Your task to perform on an android device: delete the emails in spam in the gmail app Image 0: 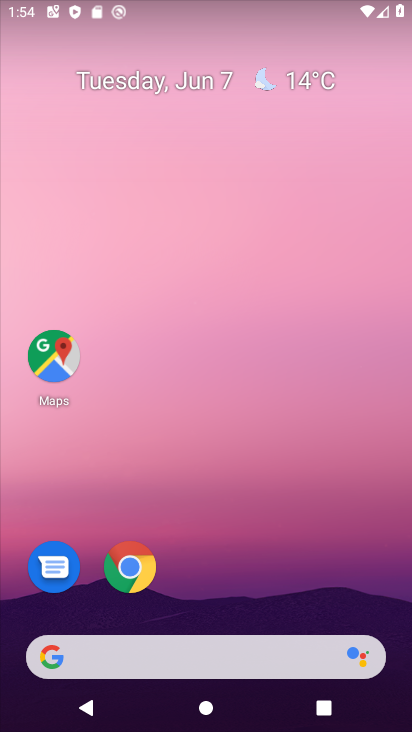
Step 0: drag from (242, 560) to (225, 53)
Your task to perform on an android device: delete the emails in spam in the gmail app Image 1: 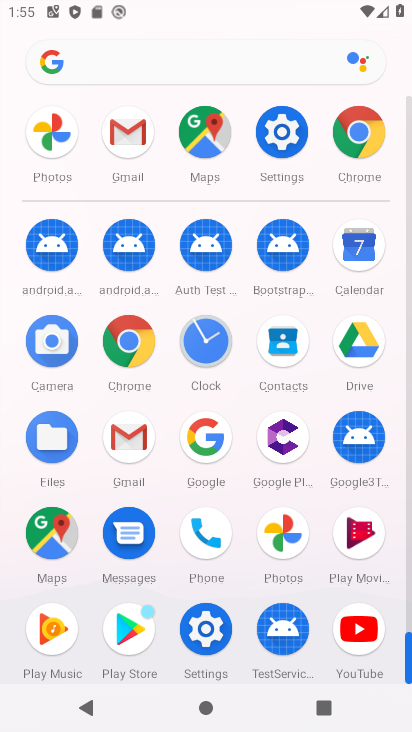
Step 1: click (133, 146)
Your task to perform on an android device: delete the emails in spam in the gmail app Image 2: 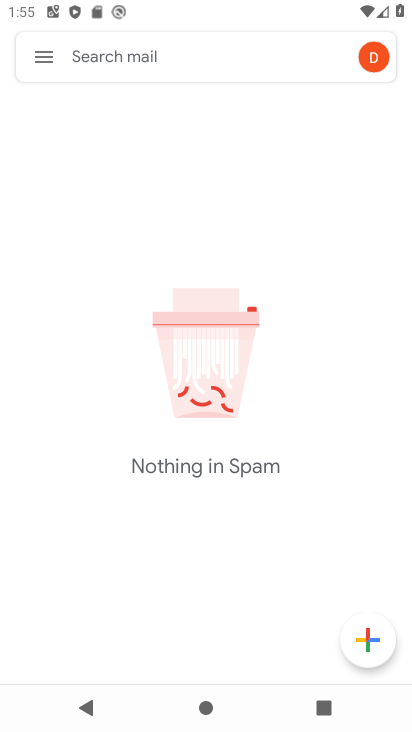
Step 2: click (35, 58)
Your task to perform on an android device: delete the emails in spam in the gmail app Image 3: 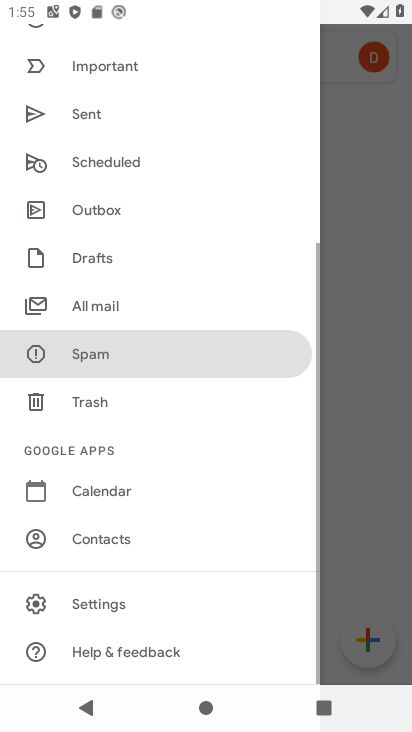
Step 3: task complete